Your task to perform on an android device: delete browsing data in the chrome app Image 0: 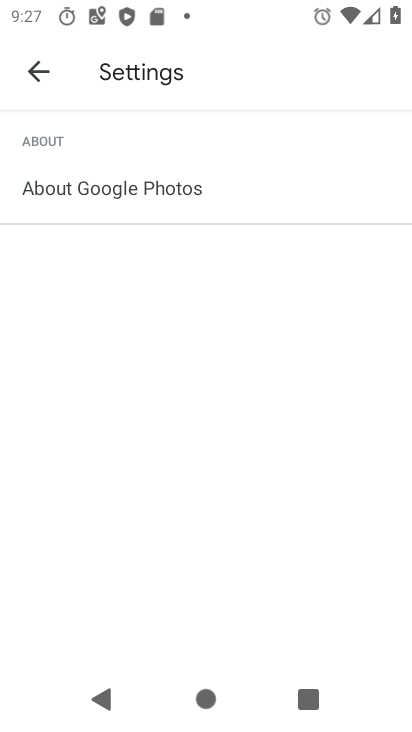
Step 0: press home button
Your task to perform on an android device: delete browsing data in the chrome app Image 1: 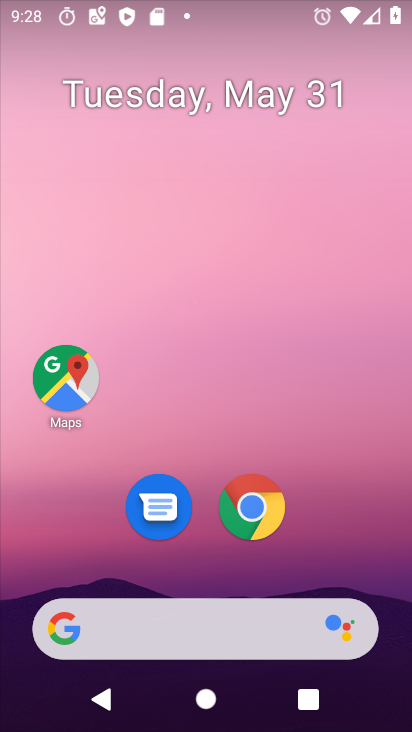
Step 1: click (251, 512)
Your task to perform on an android device: delete browsing data in the chrome app Image 2: 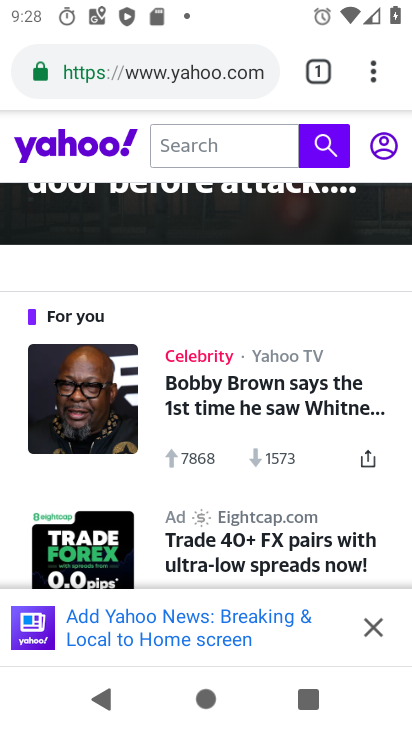
Step 2: click (375, 72)
Your task to perform on an android device: delete browsing data in the chrome app Image 3: 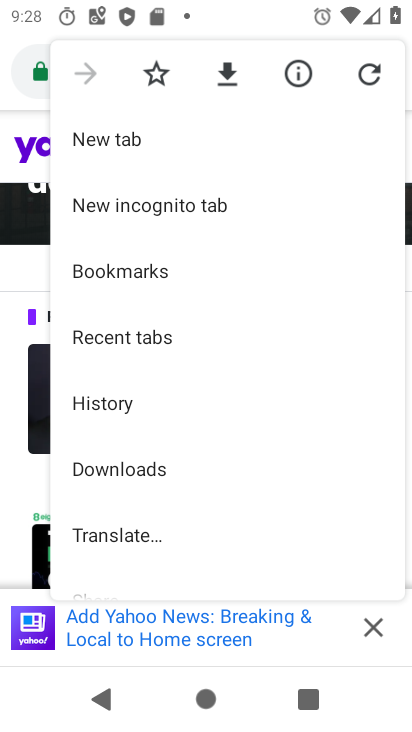
Step 3: drag from (216, 474) to (215, 154)
Your task to perform on an android device: delete browsing data in the chrome app Image 4: 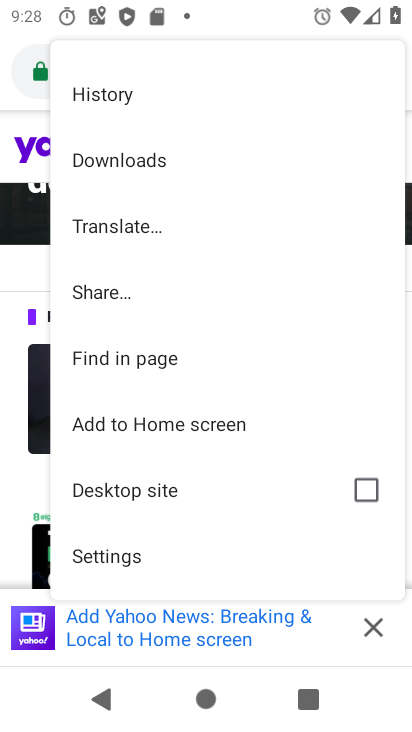
Step 4: drag from (218, 501) to (208, 168)
Your task to perform on an android device: delete browsing data in the chrome app Image 5: 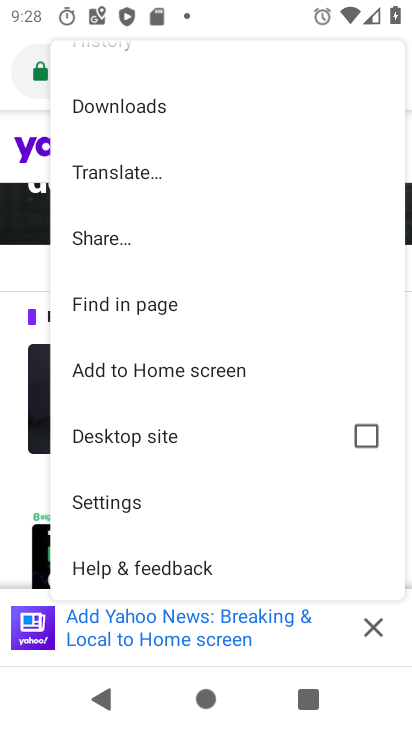
Step 5: click (112, 508)
Your task to perform on an android device: delete browsing data in the chrome app Image 6: 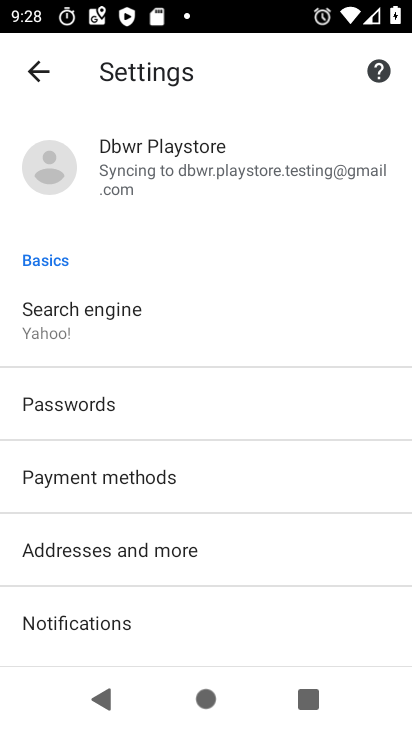
Step 6: drag from (221, 543) to (215, 132)
Your task to perform on an android device: delete browsing data in the chrome app Image 7: 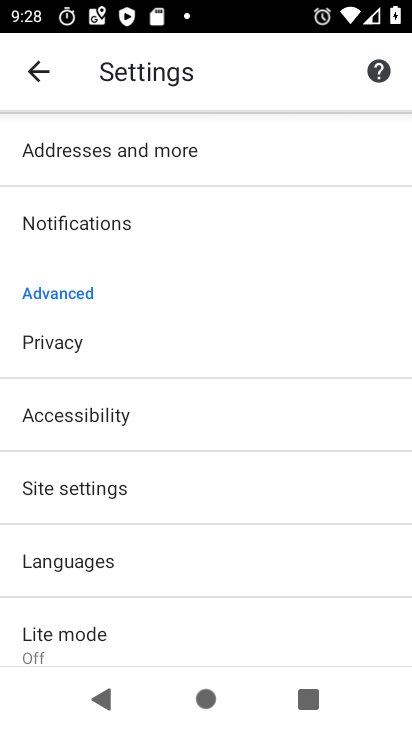
Step 7: click (44, 343)
Your task to perform on an android device: delete browsing data in the chrome app Image 8: 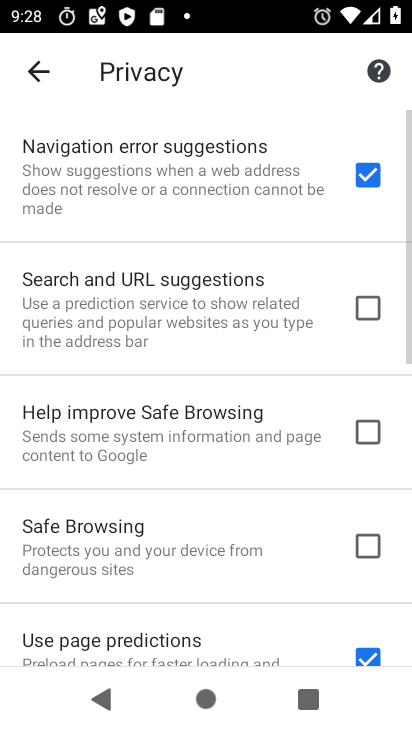
Step 8: drag from (171, 545) to (128, 127)
Your task to perform on an android device: delete browsing data in the chrome app Image 9: 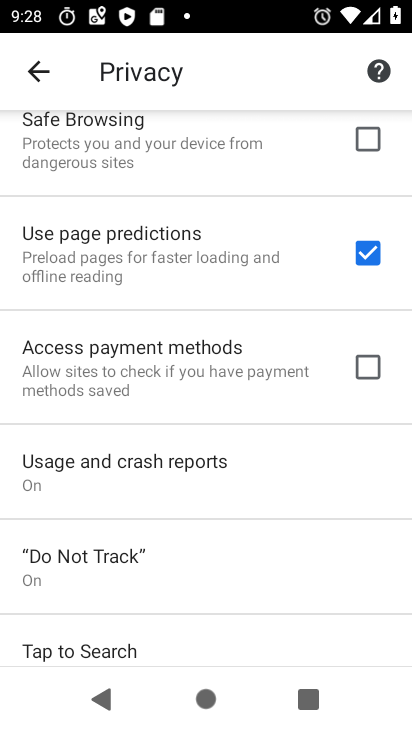
Step 9: drag from (147, 503) to (135, 110)
Your task to perform on an android device: delete browsing data in the chrome app Image 10: 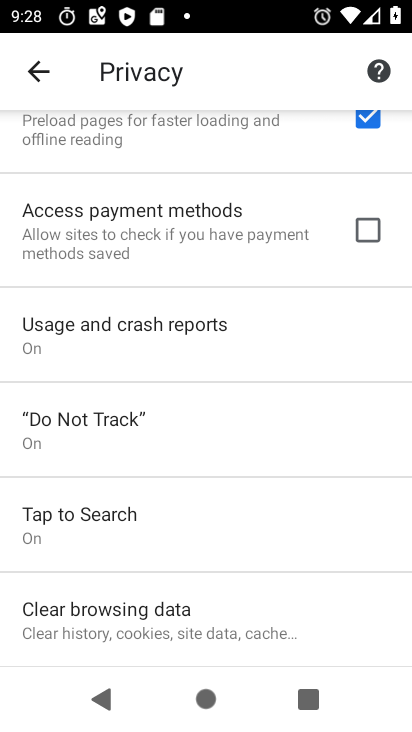
Step 10: drag from (166, 568) to (166, 445)
Your task to perform on an android device: delete browsing data in the chrome app Image 11: 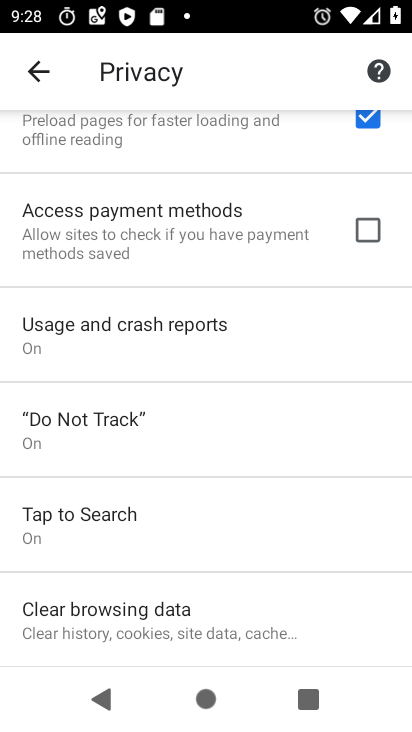
Step 11: click (122, 627)
Your task to perform on an android device: delete browsing data in the chrome app Image 12: 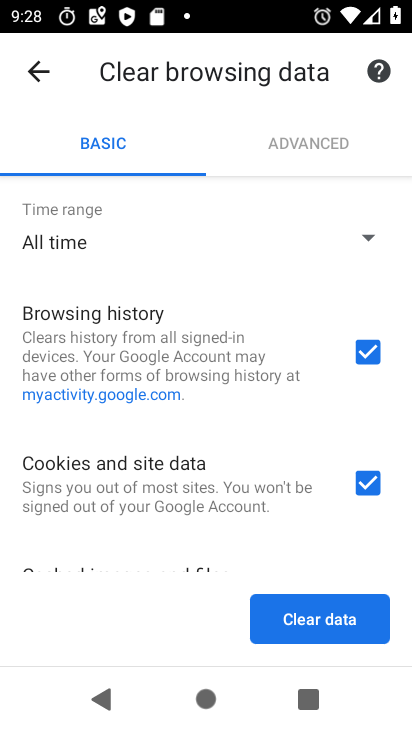
Step 12: drag from (145, 411) to (133, 250)
Your task to perform on an android device: delete browsing data in the chrome app Image 13: 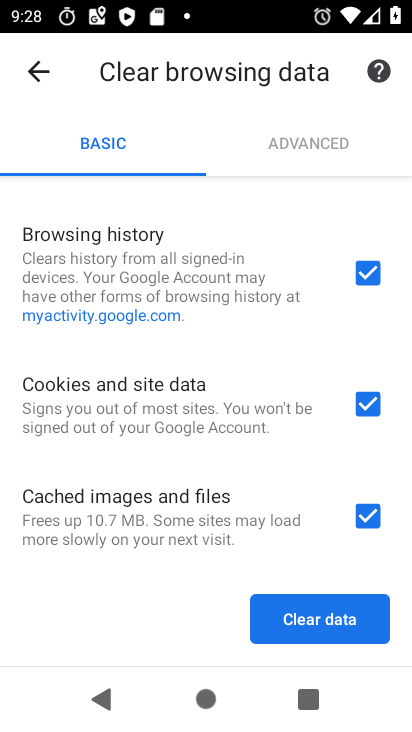
Step 13: click (357, 400)
Your task to perform on an android device: delete browsing data in the chrome app Image 14: 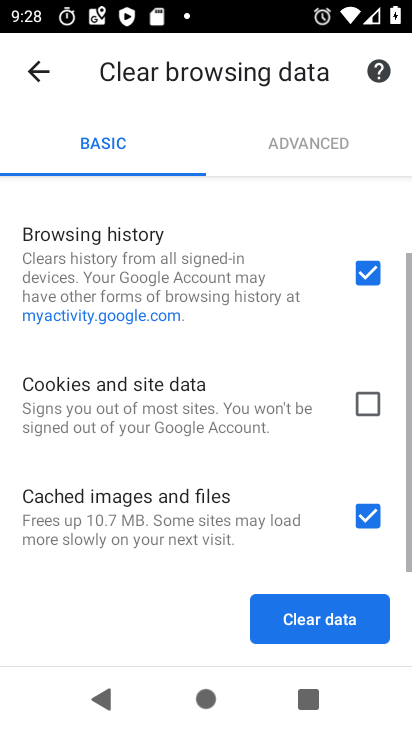
Step 14: click (368, 533)
Your task to perform on an android device: delete browsing data in the chrome app Image 15: 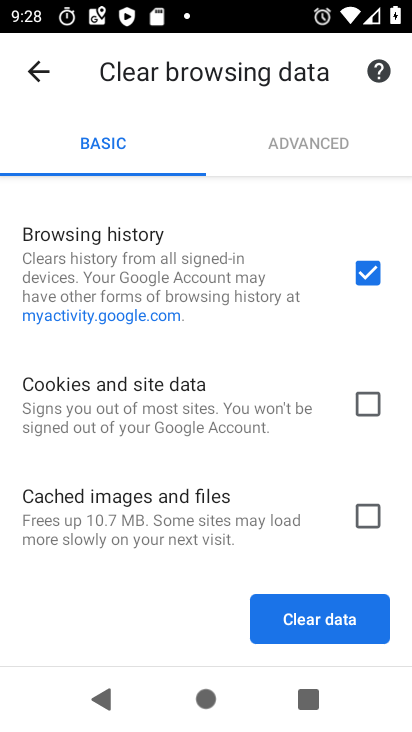
Step 15: click (330, 617)
Your task to perform on an android device: delete browsing data in the chrome app Image 16: 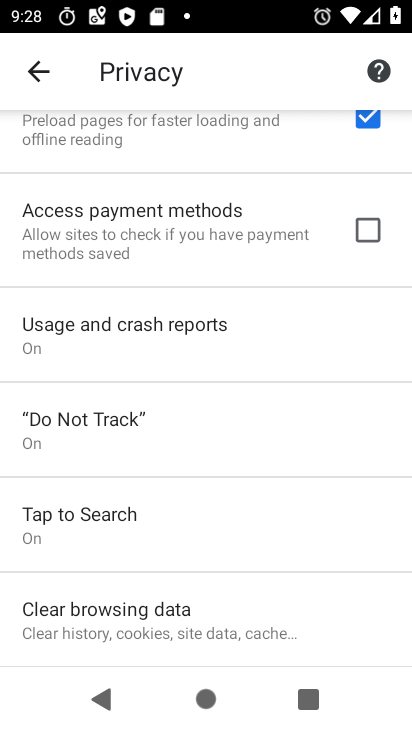
Step 16: task complete